Your task to perform on an android device: turn on wifi Image 0: 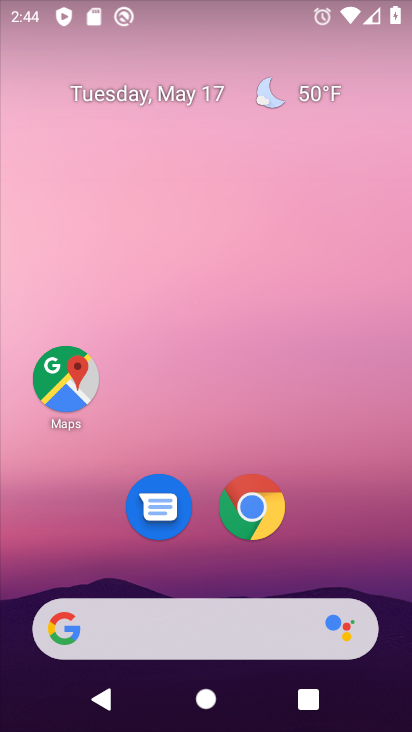
Step 0: drag from (347, 508) to (166, 54)
Your task to perform on an android device: turn on wifi Image 1: 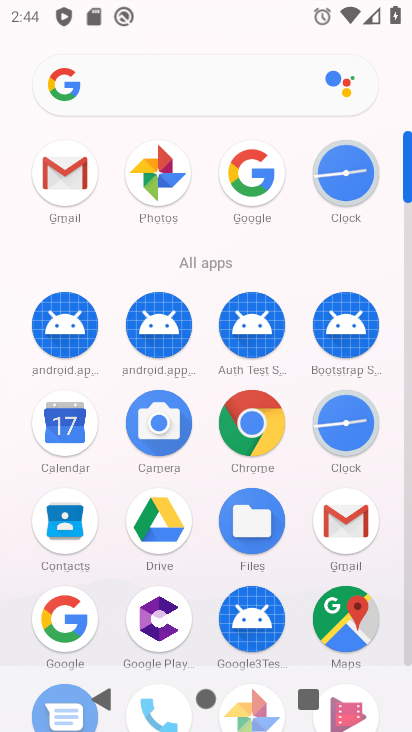
Step 1: drag from (211, 472) to (199, 172)
Your task to perform on an android device: turn on wifi Image 2: 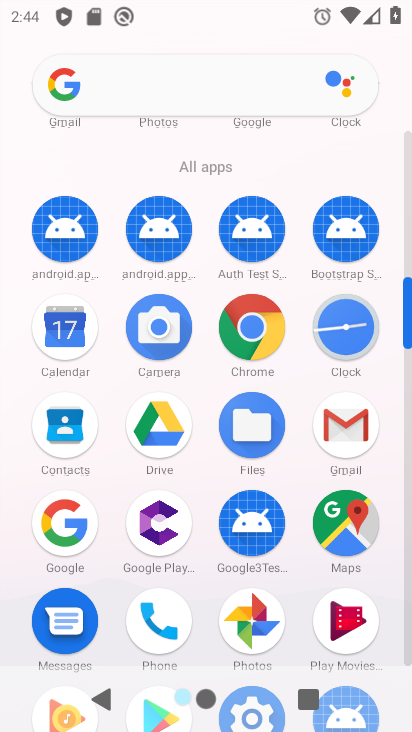
Step 2: drag from (305, 635) to (235, 251)
Your task to perform on an android device: turn on wifi Image 3: 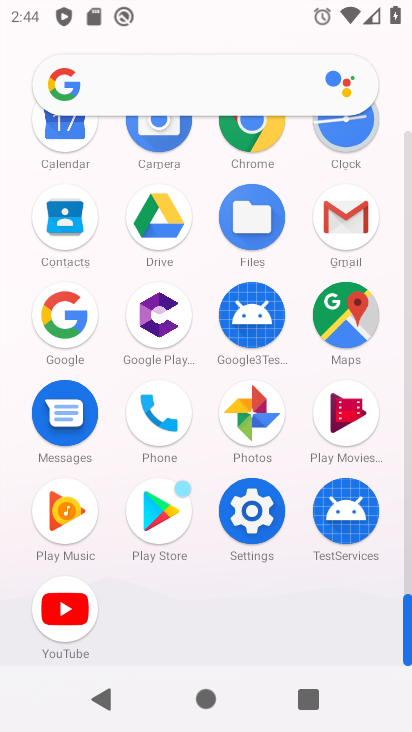
Step 3: click (254, 517)
Your task to perform on an android device: turn on wifi Image 4: 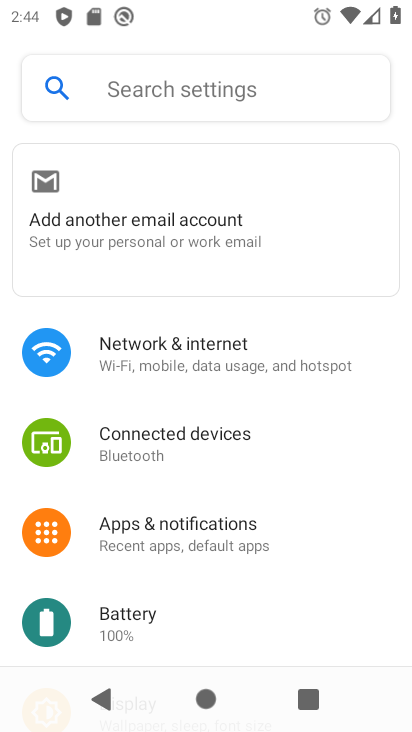
Step 4: click (227, 358)
Your task to perform on an android device: turn on wifi Image 5: 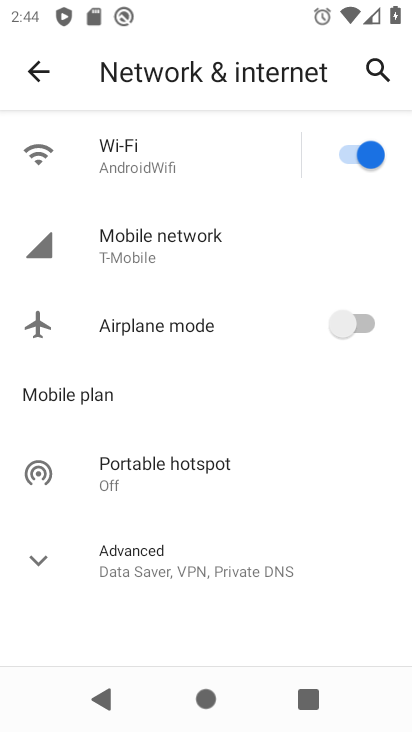
Step 5: task complete